Your task to perform on an android device: Search for a home improvement project you can do. Image 0: 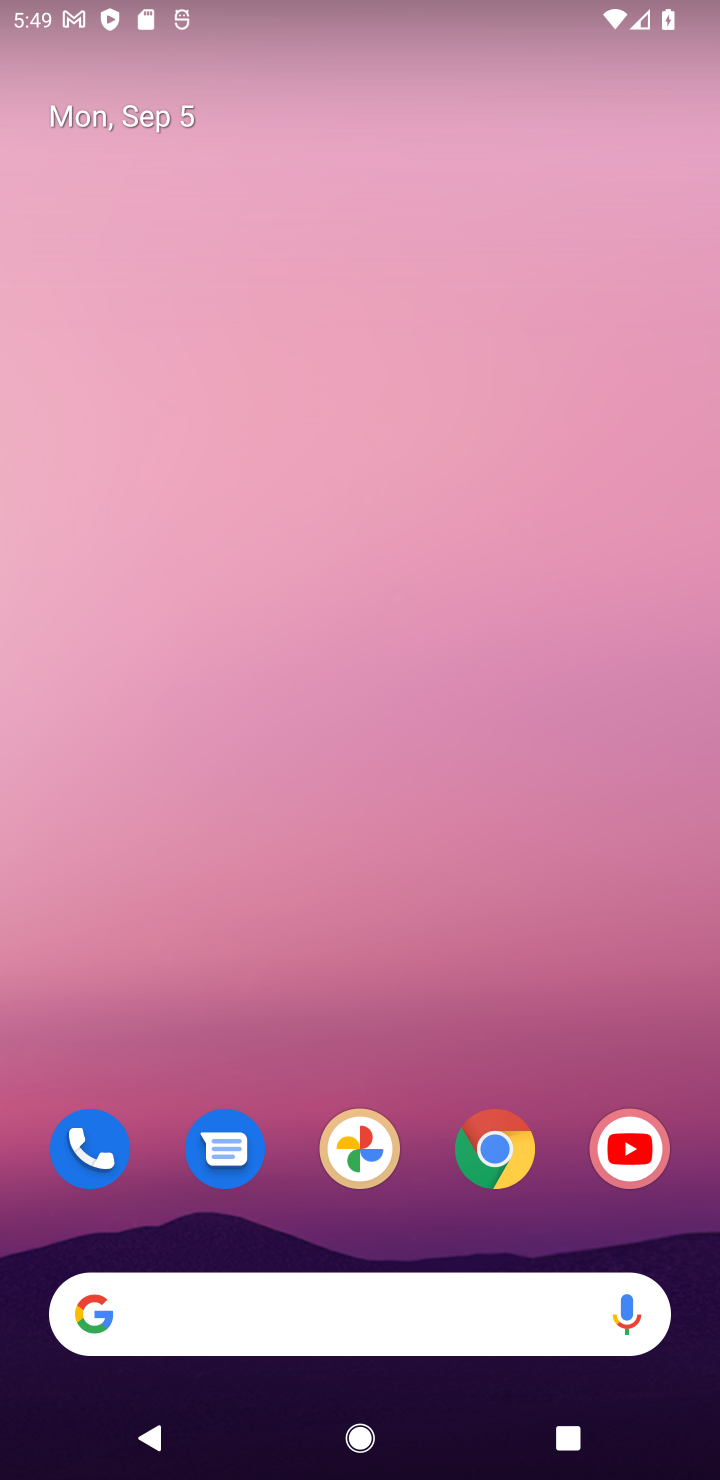
Step 0: click (497, 1154)
Your task to perform on an android device: Search for a home improvement project you can do. Image 1: 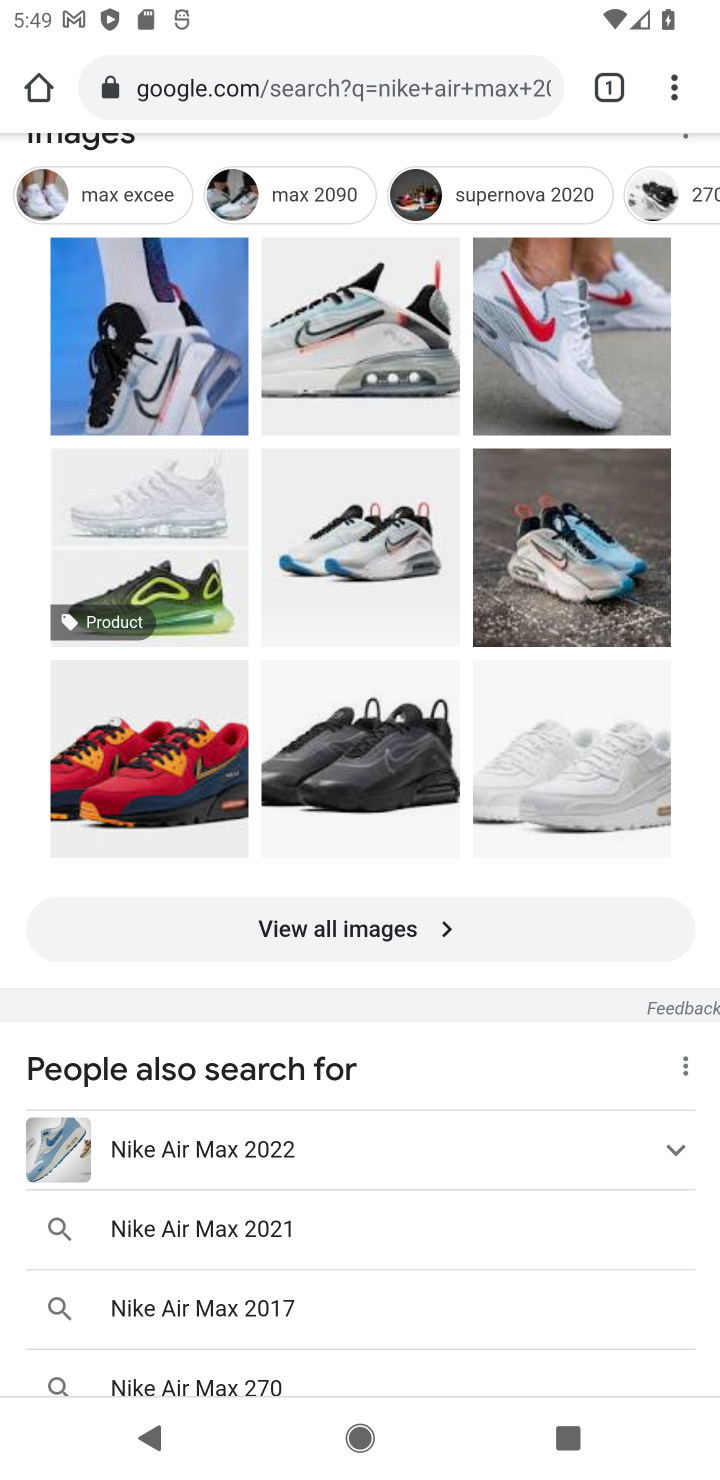
Step 1: click (302, 60)
Your task to perform on an android device: Search for a home improvement project you can do. Image 2: 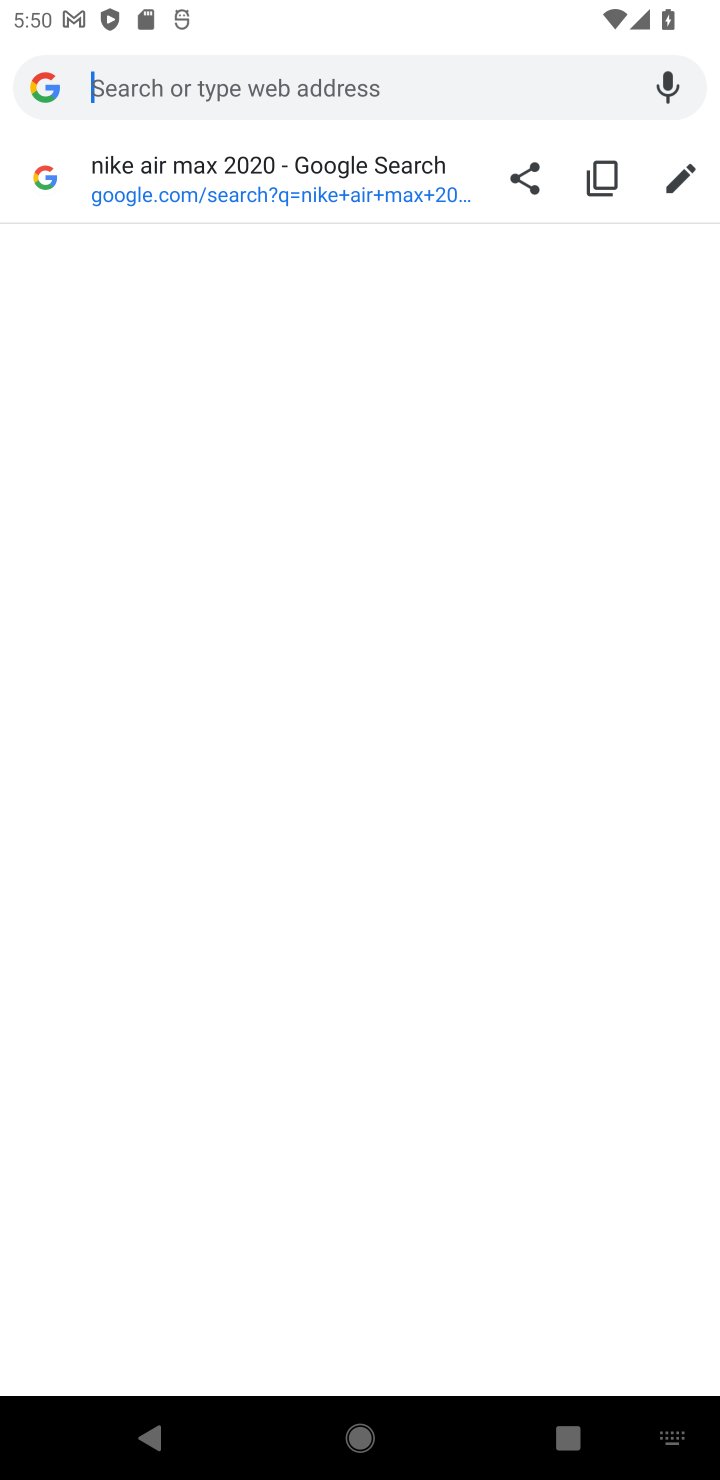
Step 2: type "home improvement project"
Your task to perform on an android device: Search for a home improvement project you can do. Image 3: 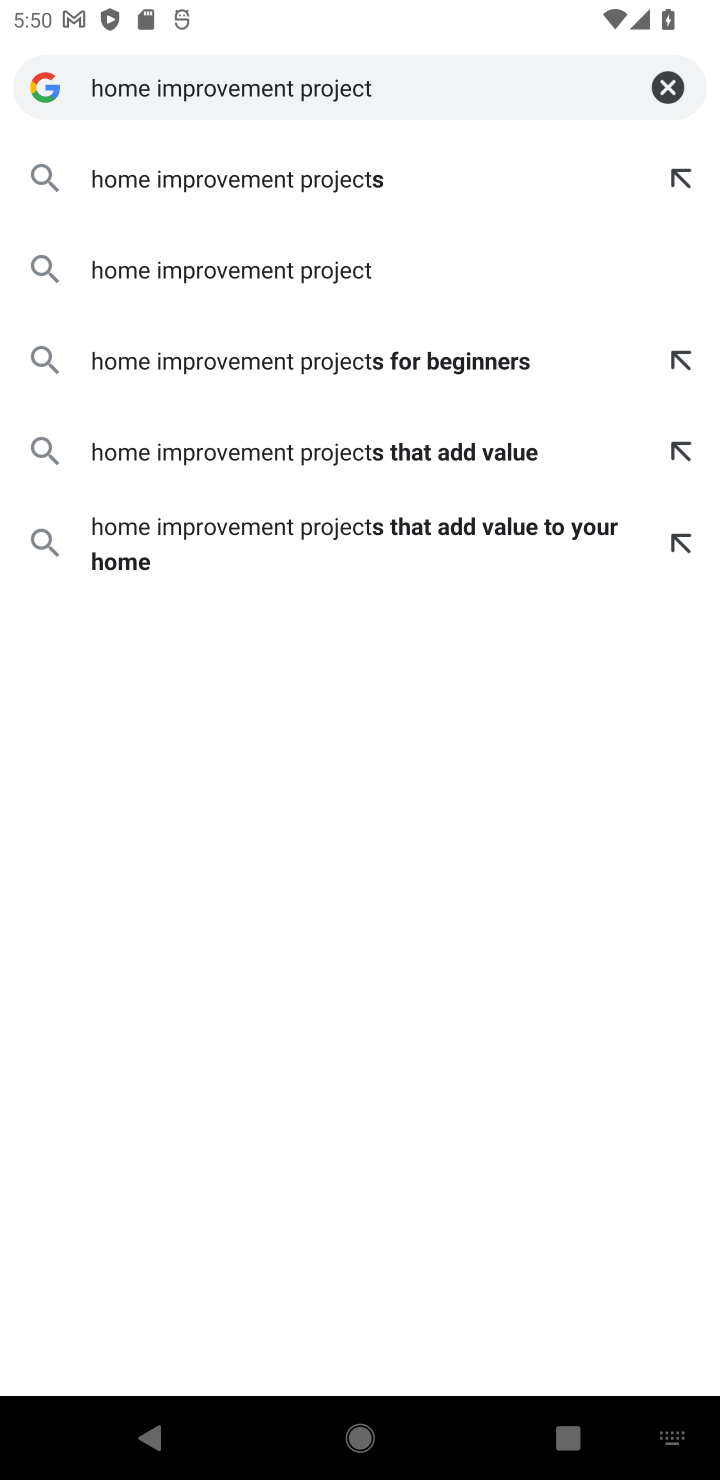
Step 3: click (218, 178)
Your task to perform on an android device: Search for a home improvement project you can do. Image 4: 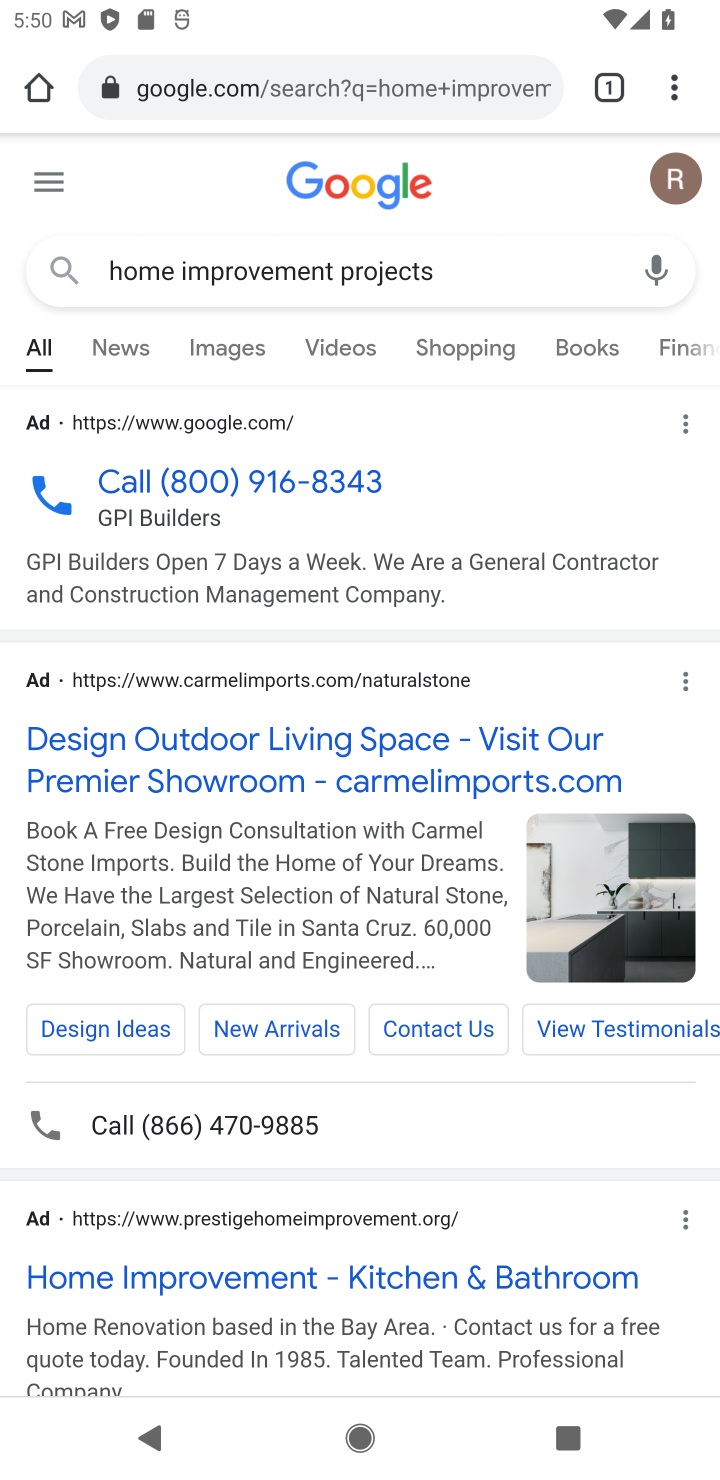
Step 4: drag from (445, 1177) to (434, 661)
Your task to perform on an android device: Search for a home improvement project you can do. Image 5: 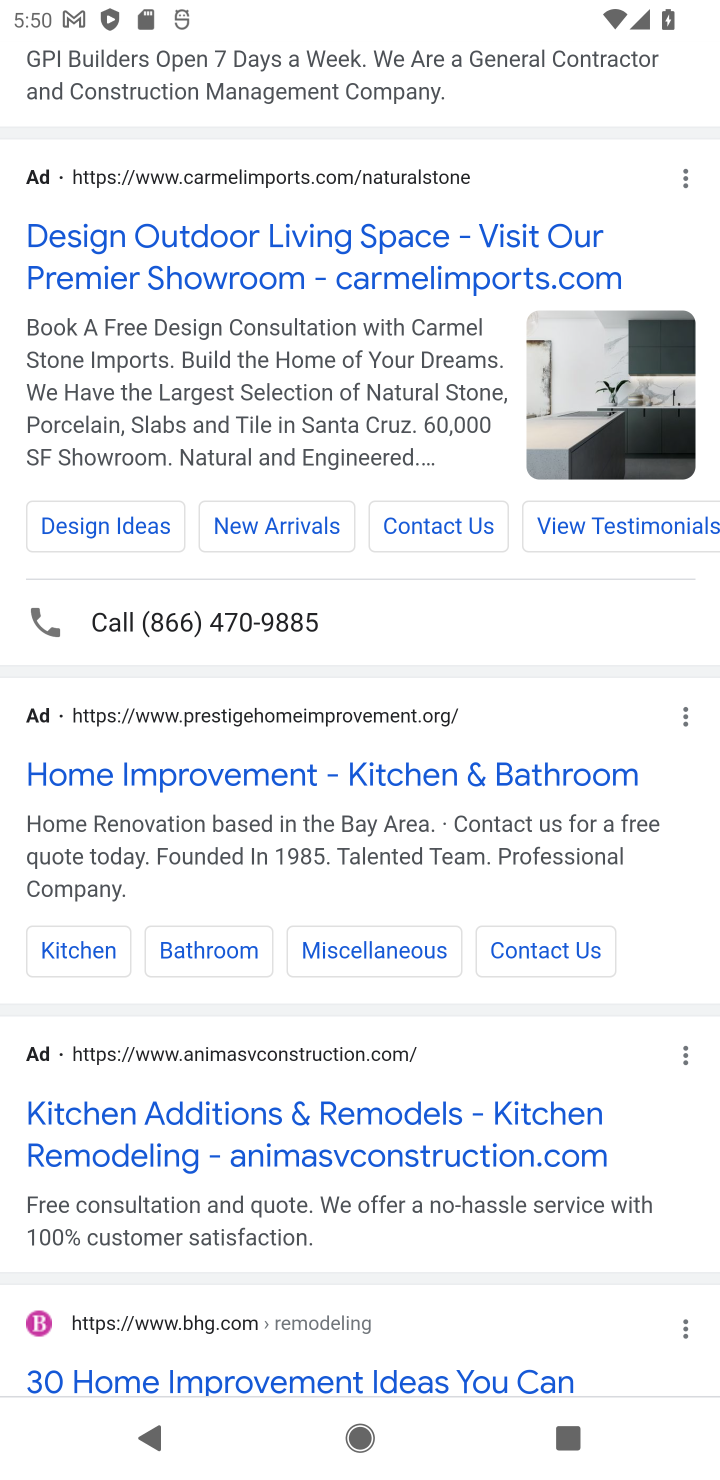
Step 5: click (179, 782)
Your task to perform on an android device: Search for a home improvement project you can do. Image 6: 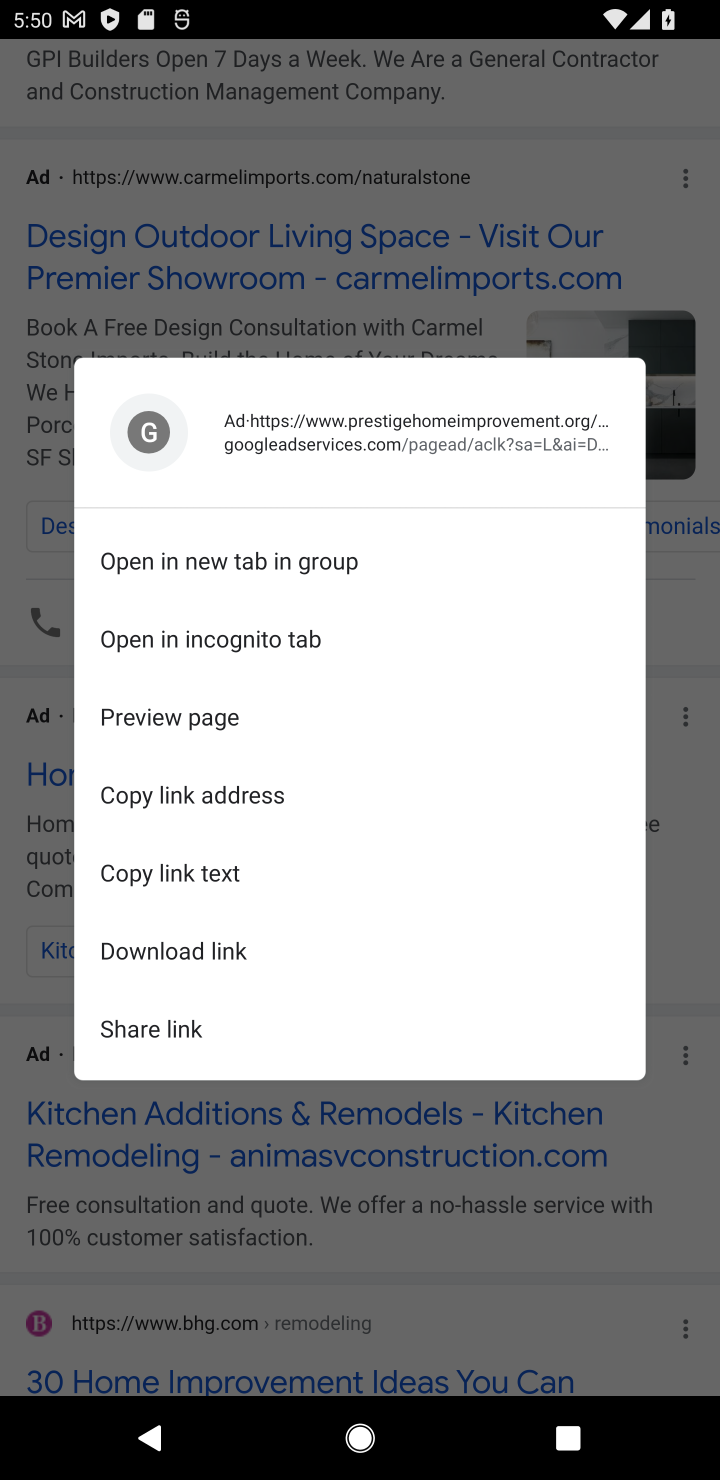
Step 6: click (221, 1161)
Your task to perform on an android device: Search for a home improvement project you can do. Image 7: 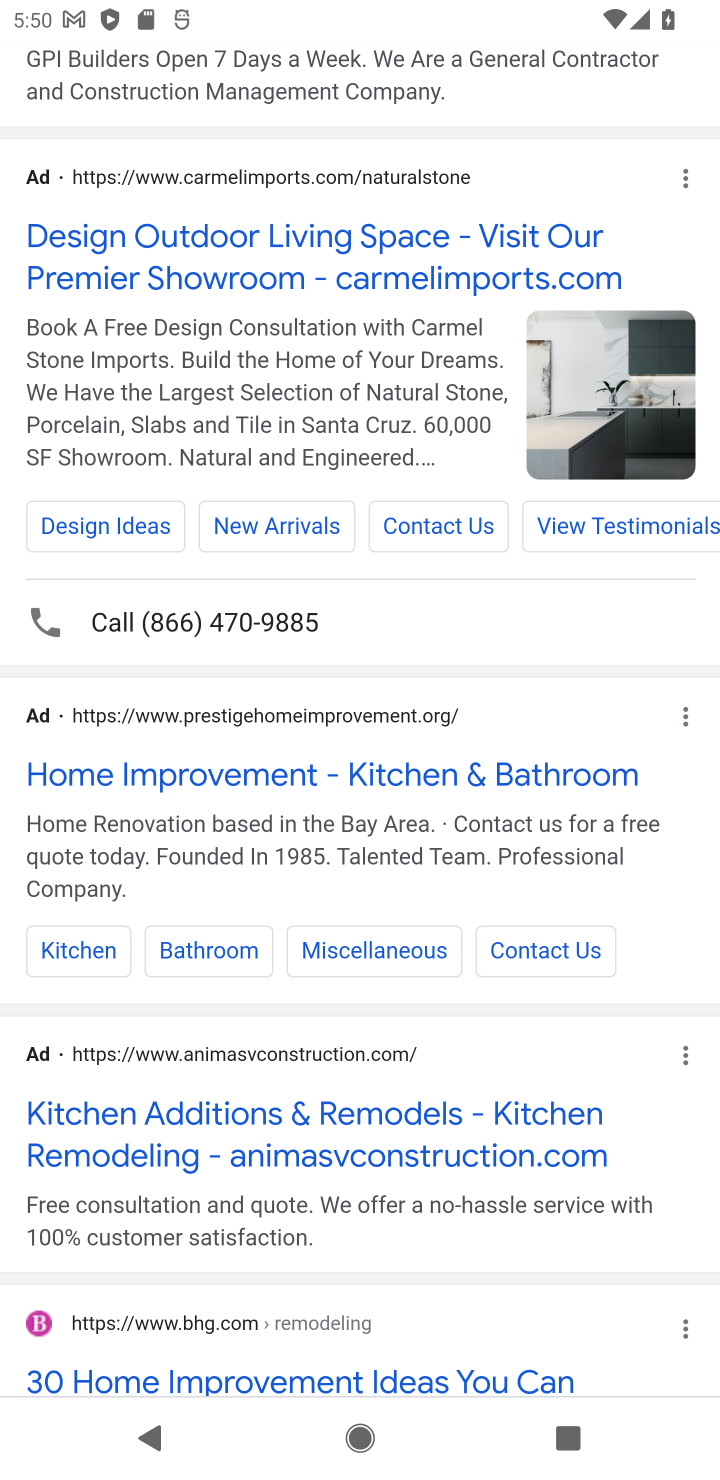
Step 7: click (262, 769)
Your task to perform on an android device: Search for a home improvement project you can do. Image 8: 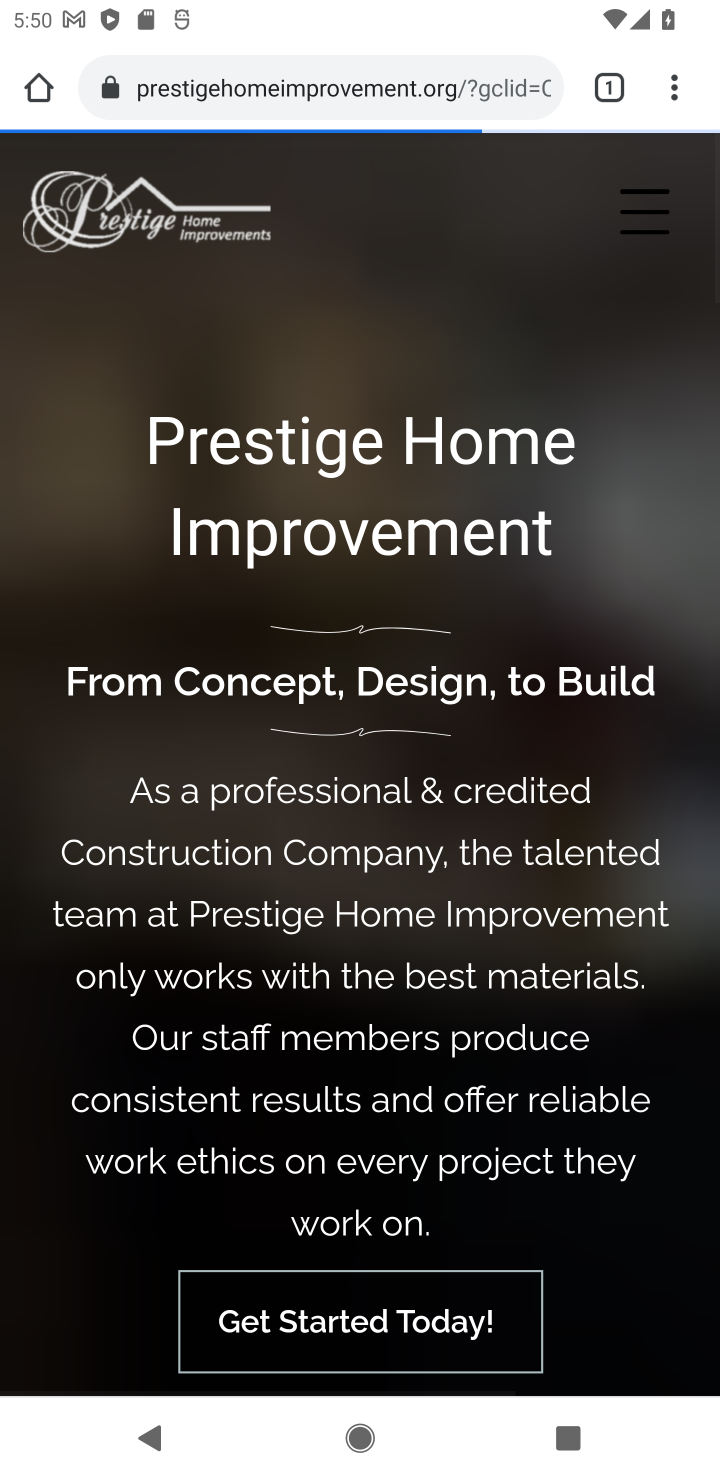
Step 8: task complete